Your task to perform on an android device: Open Google Chrome and click the shortcut for Amazon.com Image 0: 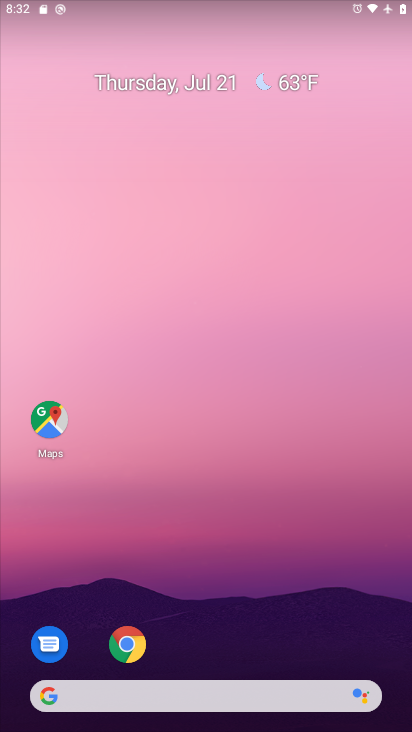
Step 0: click (123, 643)
Your task to perform on an android device: Open Google Chrome and click the shortcut for Amazon.com Image 1: 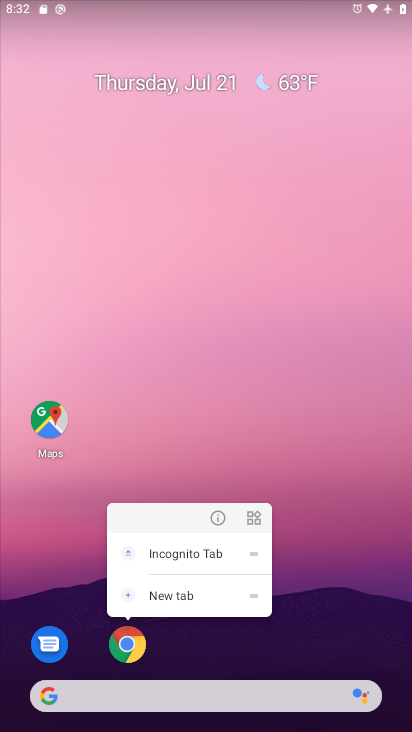
Step 1: click (123, 643)
Your task to perform on an android device: Open Google Chrome and click the shortcut for Amazon.com Image 2: 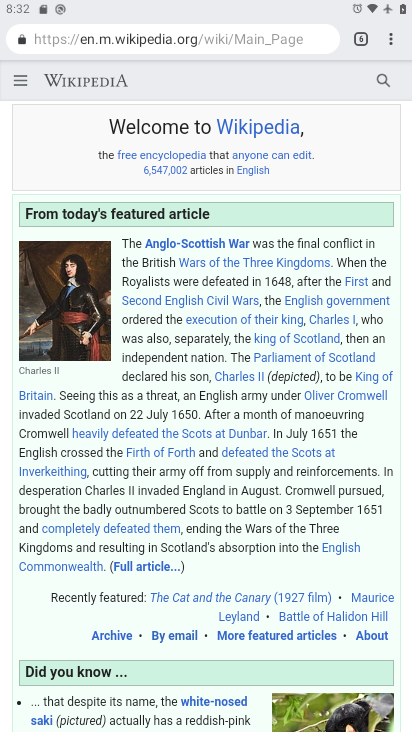
Step 2: click (390, 38)
Your task to perform on an android device: Open Google Chrome and click the shortcut for Amazon.com Image 3: 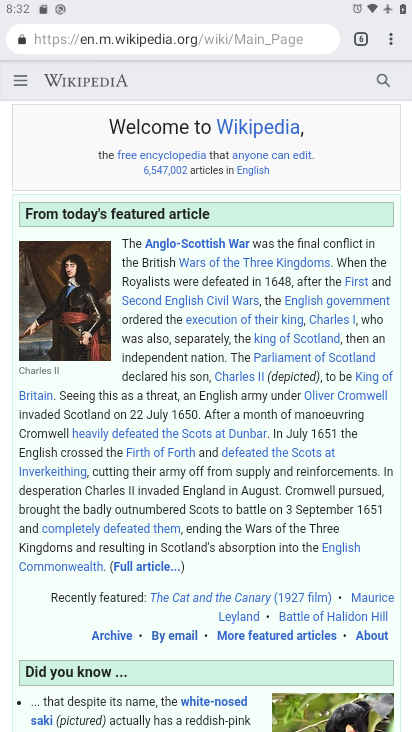
Step 3: click (396, 40)
Your task to perform on an android device: Open Google Chrome and click the shortcut for Amazon.com Image 4: 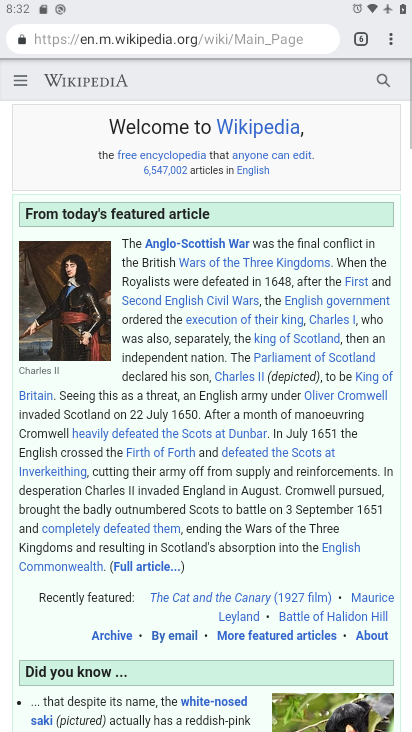
Step 4: click (396, 40)
Your task to perform on an android device: Open Google Chrome and click the shortcut for Amazon.com Image 5: 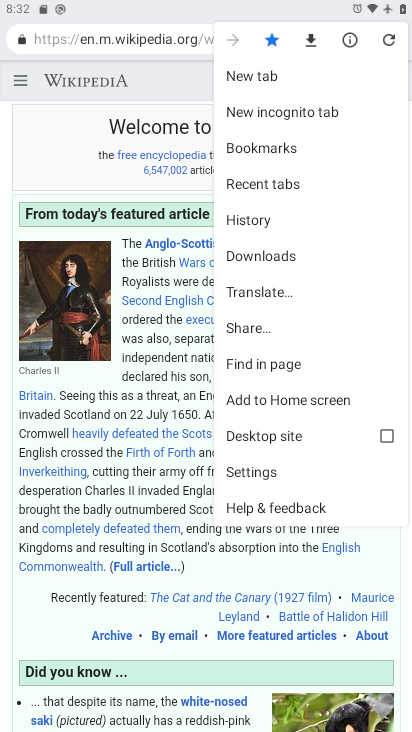
Step 5: click (234, 75)
Your task to perform on an android device: Open Google Chrome and click the shortcut for Amazon.com Image 6: 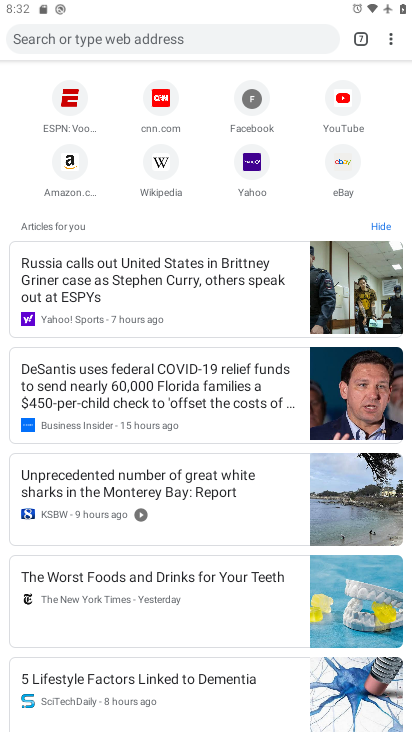
Step 6: click (68, 162)
Your task to perform on an android device: Open Google Chrome and click the shortcut for Amazon.com Image 7: 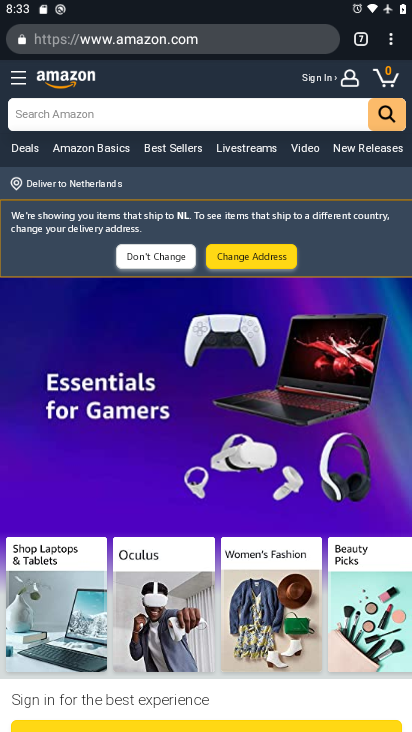
Step 7: task complete